Your task to perform on an android device: turn pop-ups on in chrome Image 0: 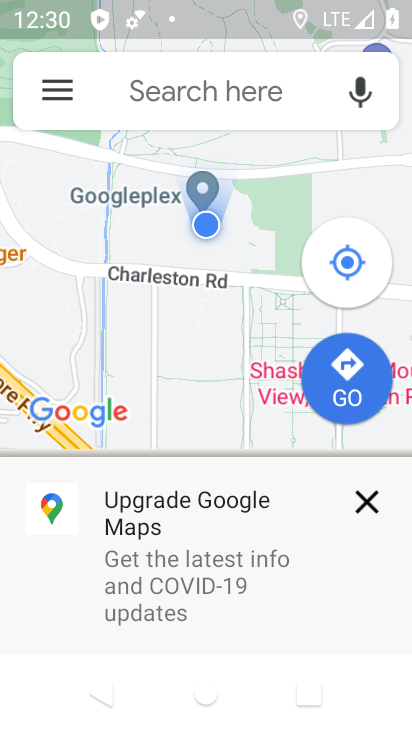
Step 0: press home button
Your task to perform on an android device: turn pop-ups on in chrome Image 1: 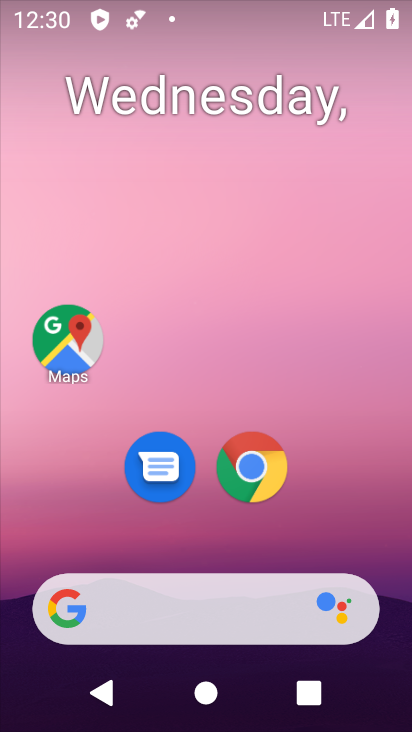
Step 1: drag from (340, 503) to (357, 126)
Your task to perform on an android device: turn pop-ups on in chrome Image 2: 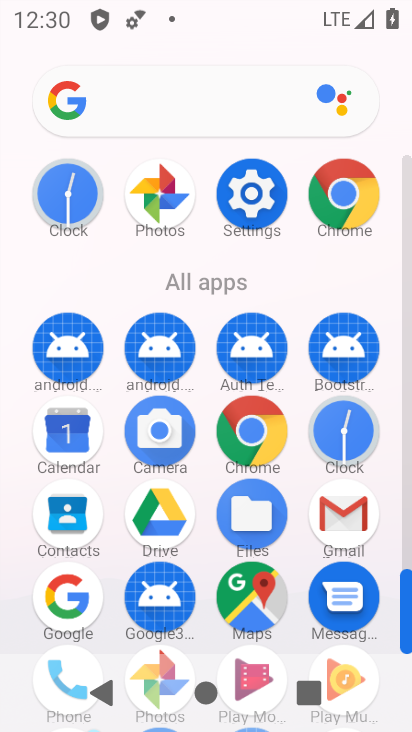
Step 2: click (264, 424)
Your task to perform on an android device: turn pop-ups on in chrome Image 3: 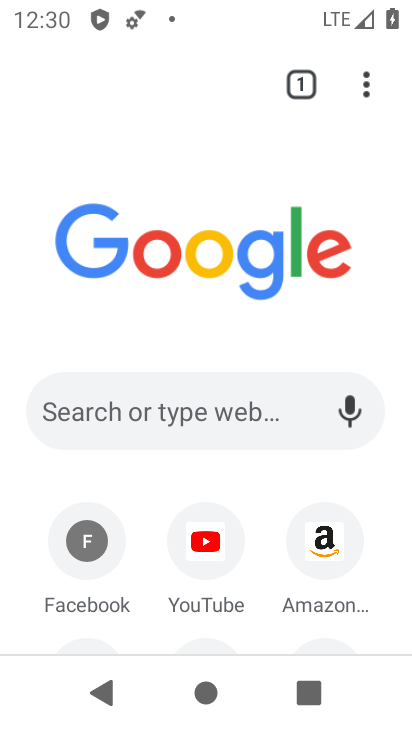
Step 3: click (364, 97)
Your task to perform on an android device: turn pop-ups on in chrome Image 4: 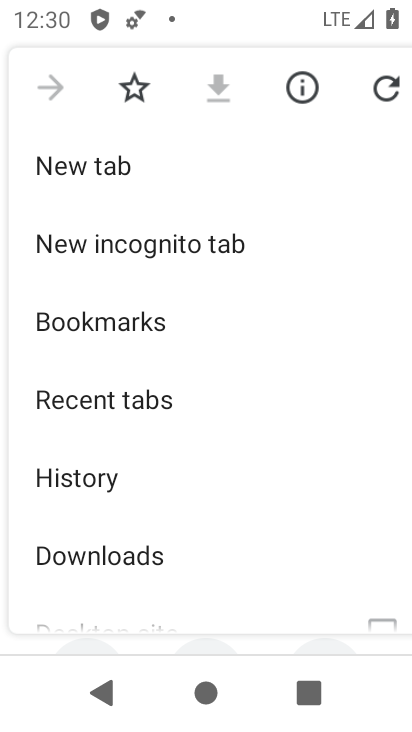
Step 4: drag from (315, 404) to (307, 284)
Your task to perform on an android device: turn pop-ups on in chrome Image 5: 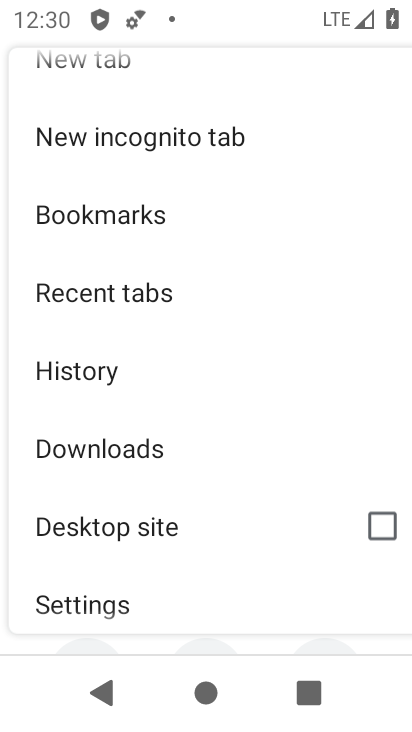
Step 5: drag from (298, 466) to (289, 303)
Your task to perform on an android device: turn pop-ups on in chrome Image 6: 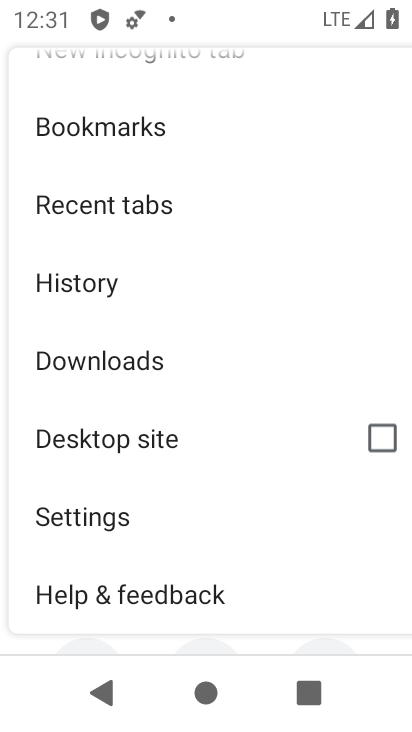
Step 6: drag from (266, 517) to (268, 413)
Your task to perform on an android device: turn pop-ups on in chrome Image 7: 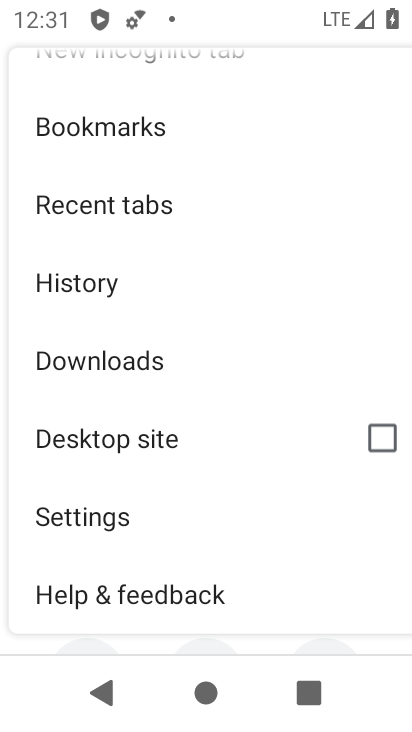
Step 7: click (186, 509)
Your task to perform on an android device: turn pop-ups on in chrome Image 8: 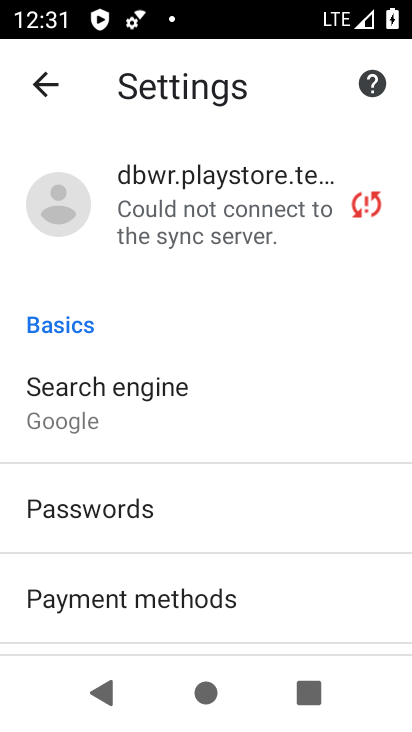
Step 8: drag from (288, 528) to (296, 458)
Your task to perform on an android device: turn pop-ups on in chrome Image 9: 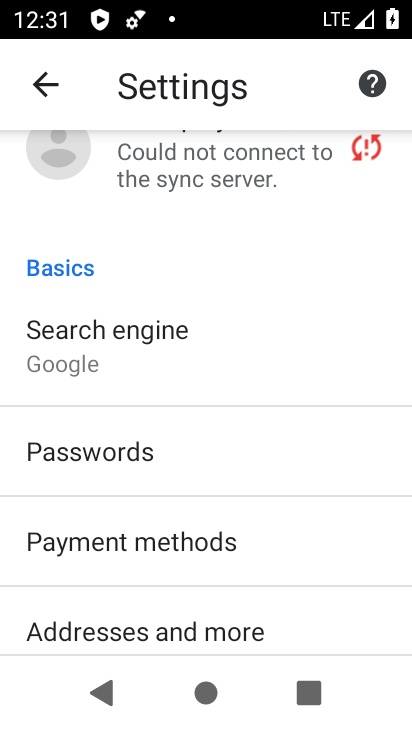
Step 9: drag from (338, 583) to (353, 412)
Your task to perform on an android device: turn pop-ups on in chrome Image 10: 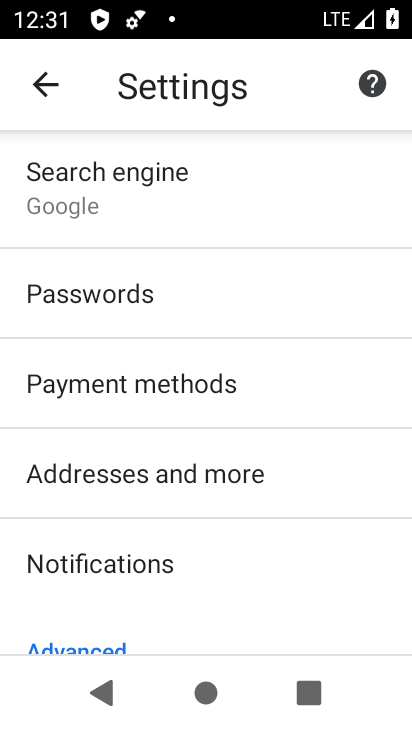
Step 10: drag from (346, 509) to (363, 377)
Your task to perform on an android device: turn pop-ups on in chrome Image 11: 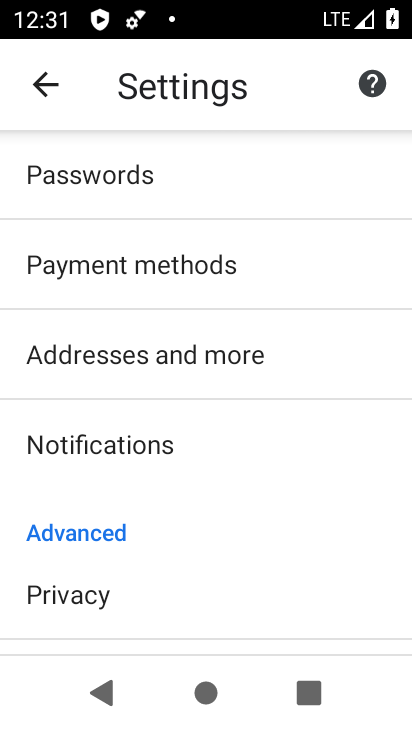
Step 11: drag from (308, 506) to (312, 299)
Your task to perform on an android device: turn pop-ups on in chrome Image 12: 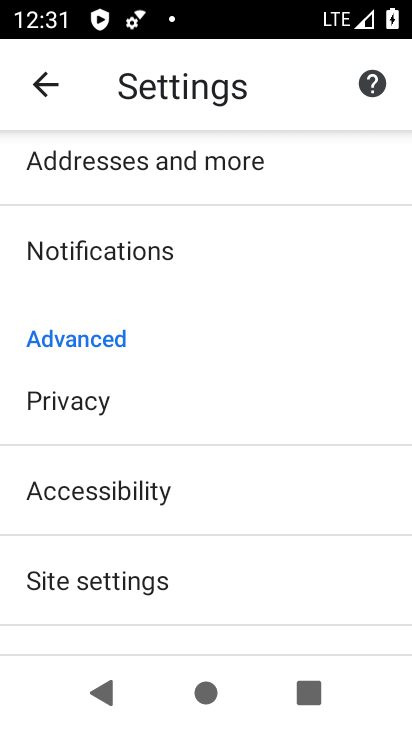
Step 12: click (211, 573)
Your task to perform on an android device: turn pop-ups on in chrome Image 13: 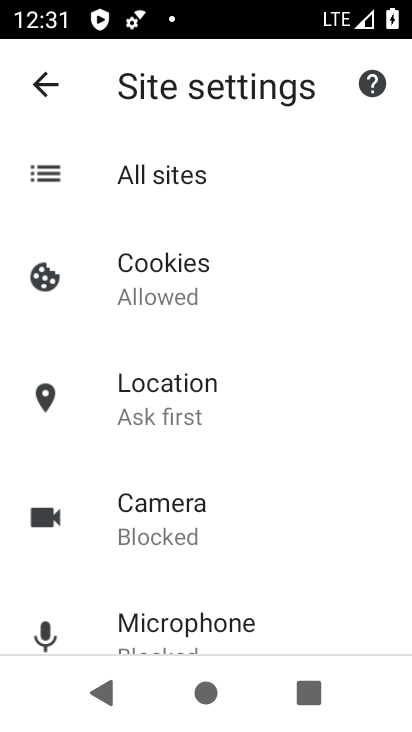
Step 13: drag from (288, 501) to (300, 347)
Your task to perform on an android device: turn pop-ups on in chrome Image 14: 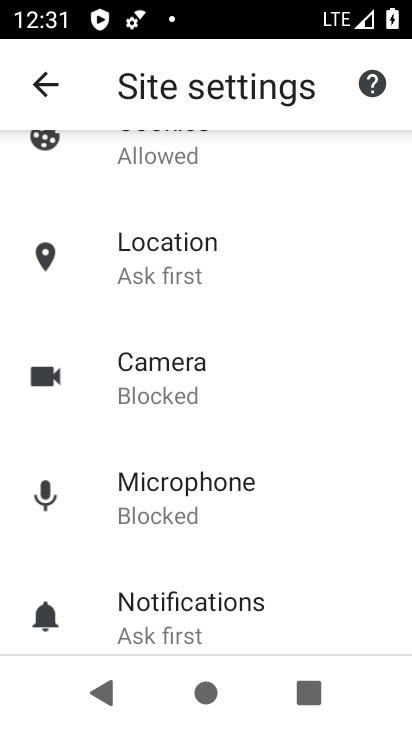
Step 14: drag from (297, 534) to (329, 330)
Your task to perform on an android device: turn pop-ups on in chrome Image 15: 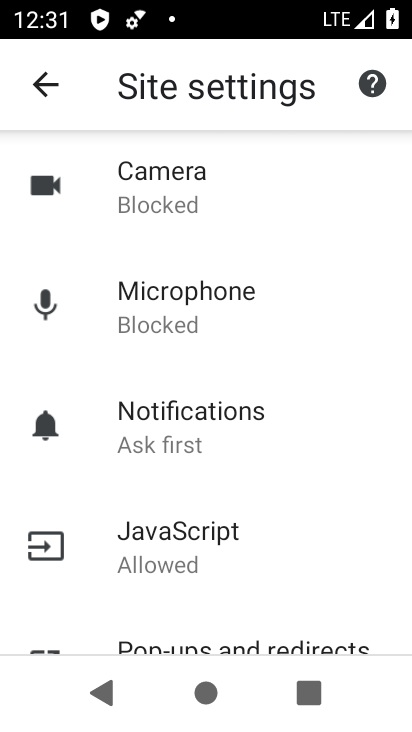
Step 15: drag from (301, 502) to (328, 325)
Your task to perform on an android device: turn pop-ups on in chrome Image 16: 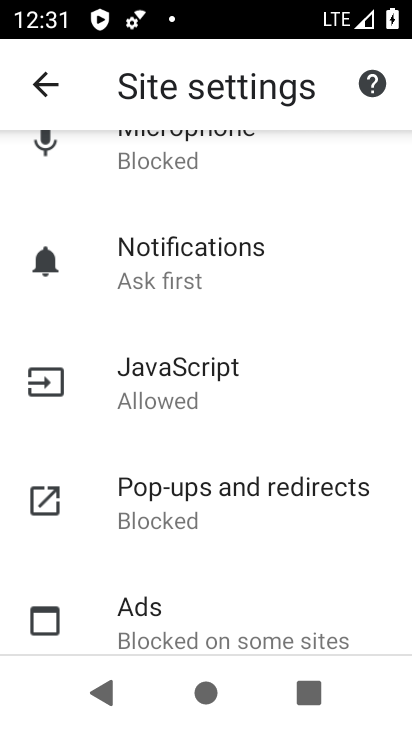
Step 16: click (295, 508)
Your task to perform on an android device: turn pop-ups on in chrome Image 17: 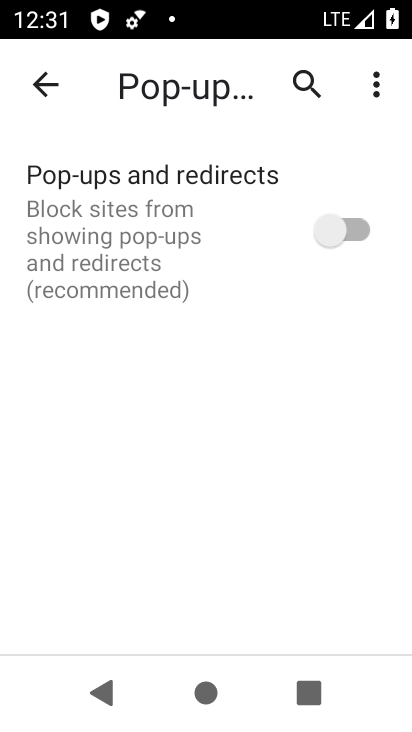
Step 17: click (344, 235)
Your task to perform on an android device: turn pop-ups on in chrome Image 18: 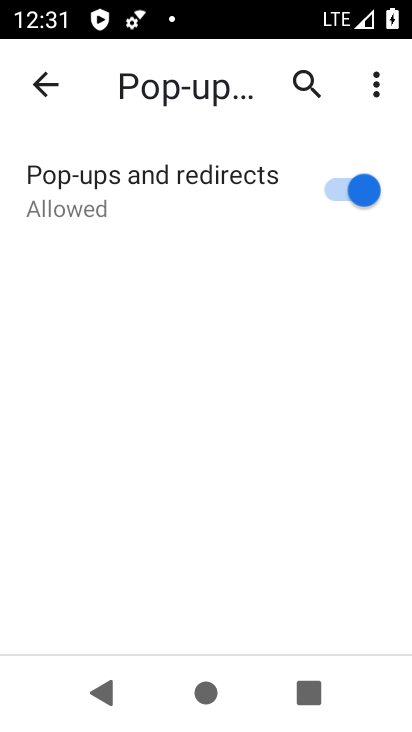
Step 18: task complete